Your task to perform on an android device: Clear all items from cart on ebay. Image 0: 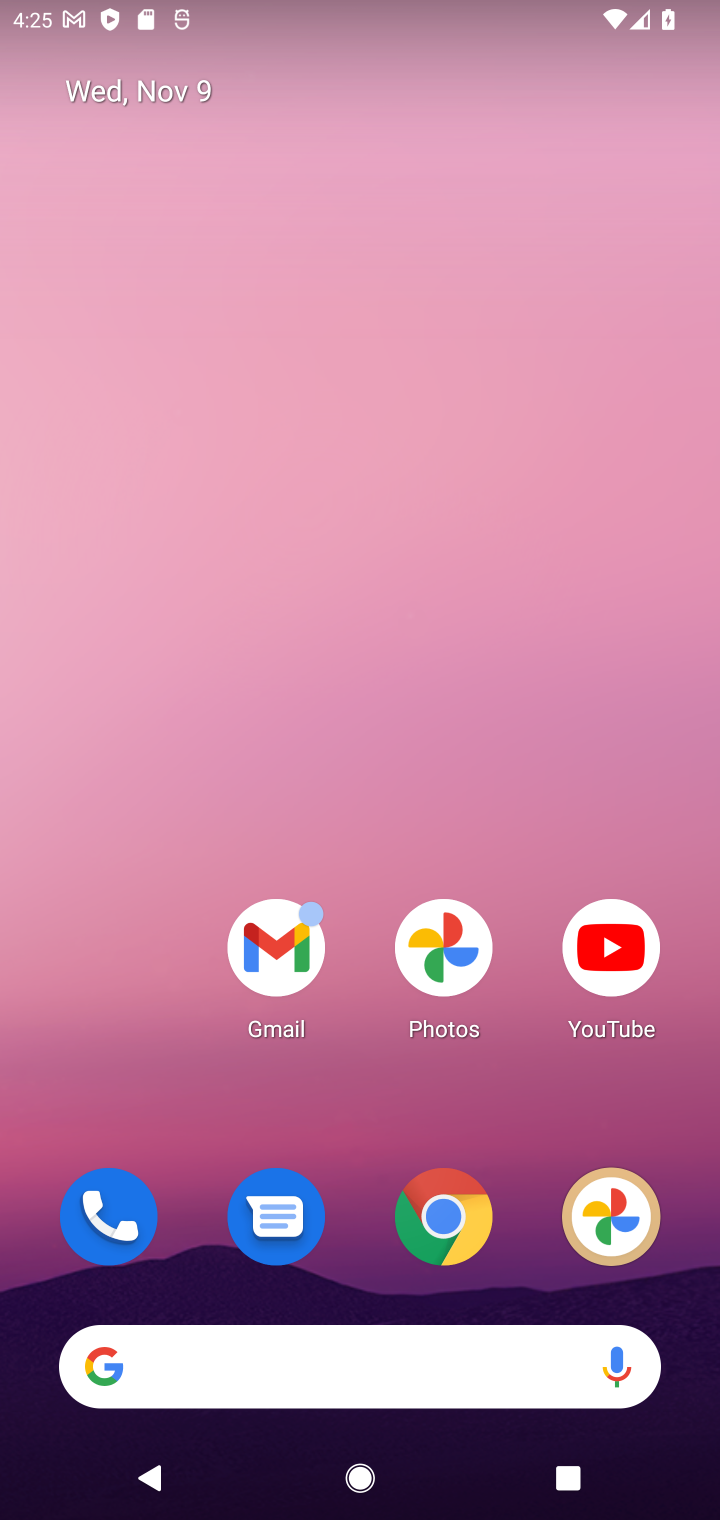
Step 0: drag from (366, 1071) to (382, 223)
Your task to perform on an android device: Clear all items from cart on ebay. Image 1: 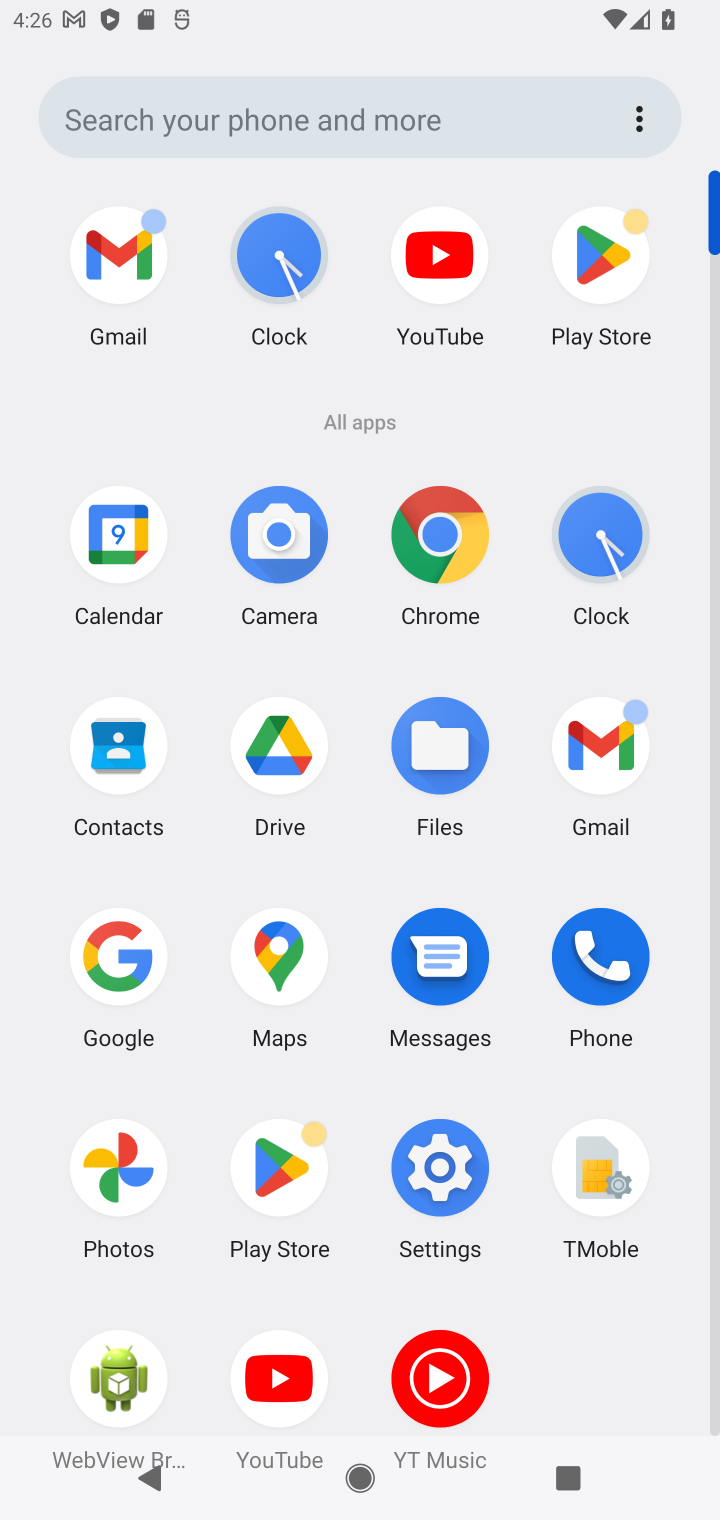
Step 1: click (451, 541)
Your task to perform on an android device: Clear all items from cart on ebay. Image 2: 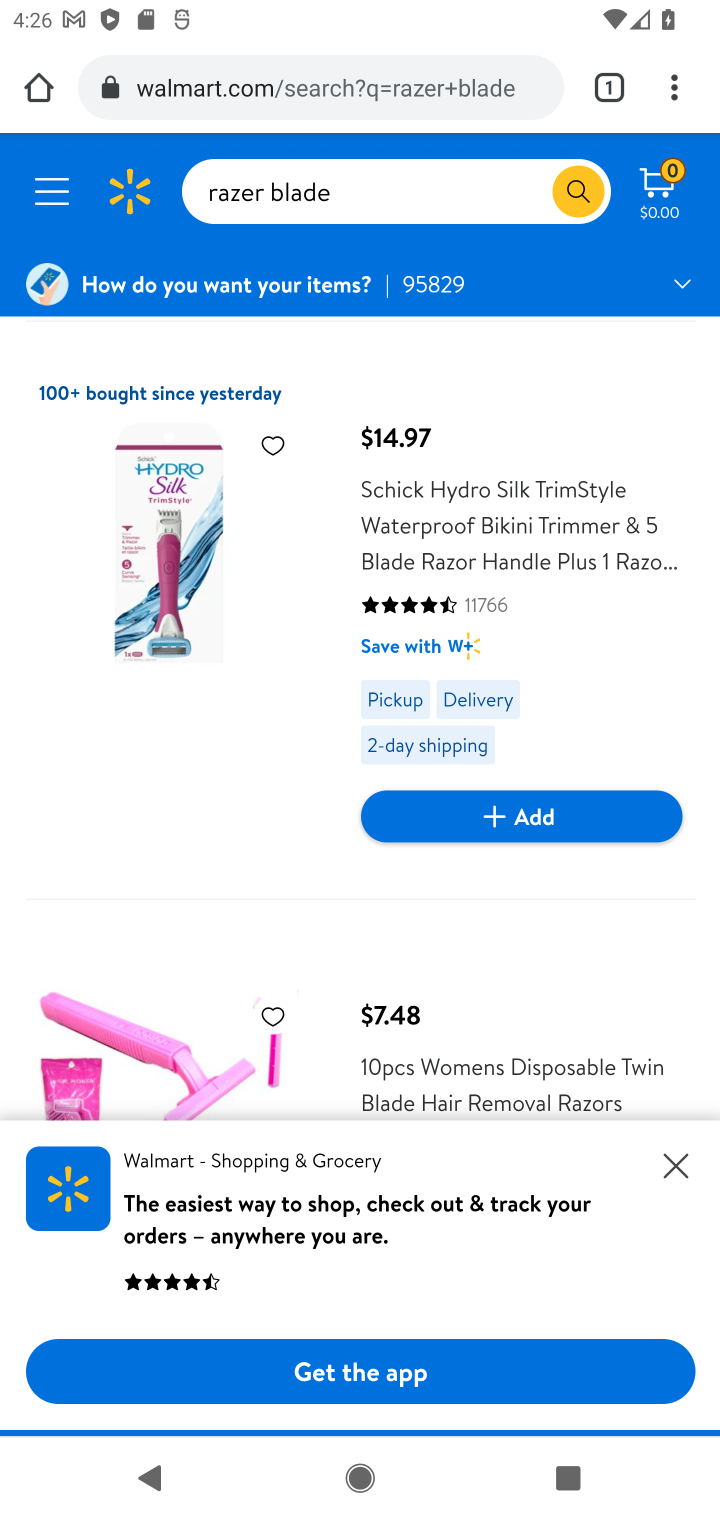
Step 2: click (388, 70)
Your task to perform on an android device: Clear all items from cart on ebay. Image 3: 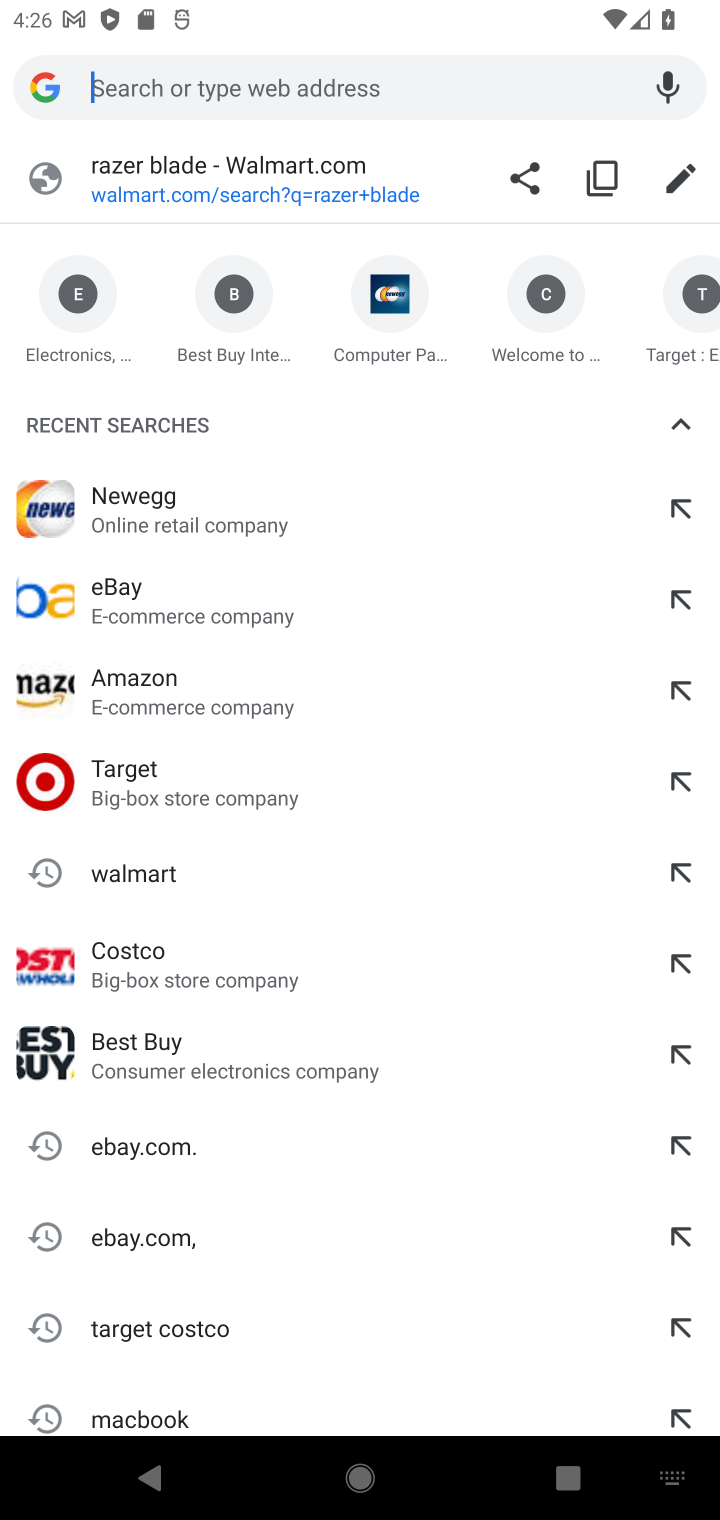
Step 3: type "ebay.com"
Your task to perform on an android device: Clear all items from cart on ebay. Image 4: 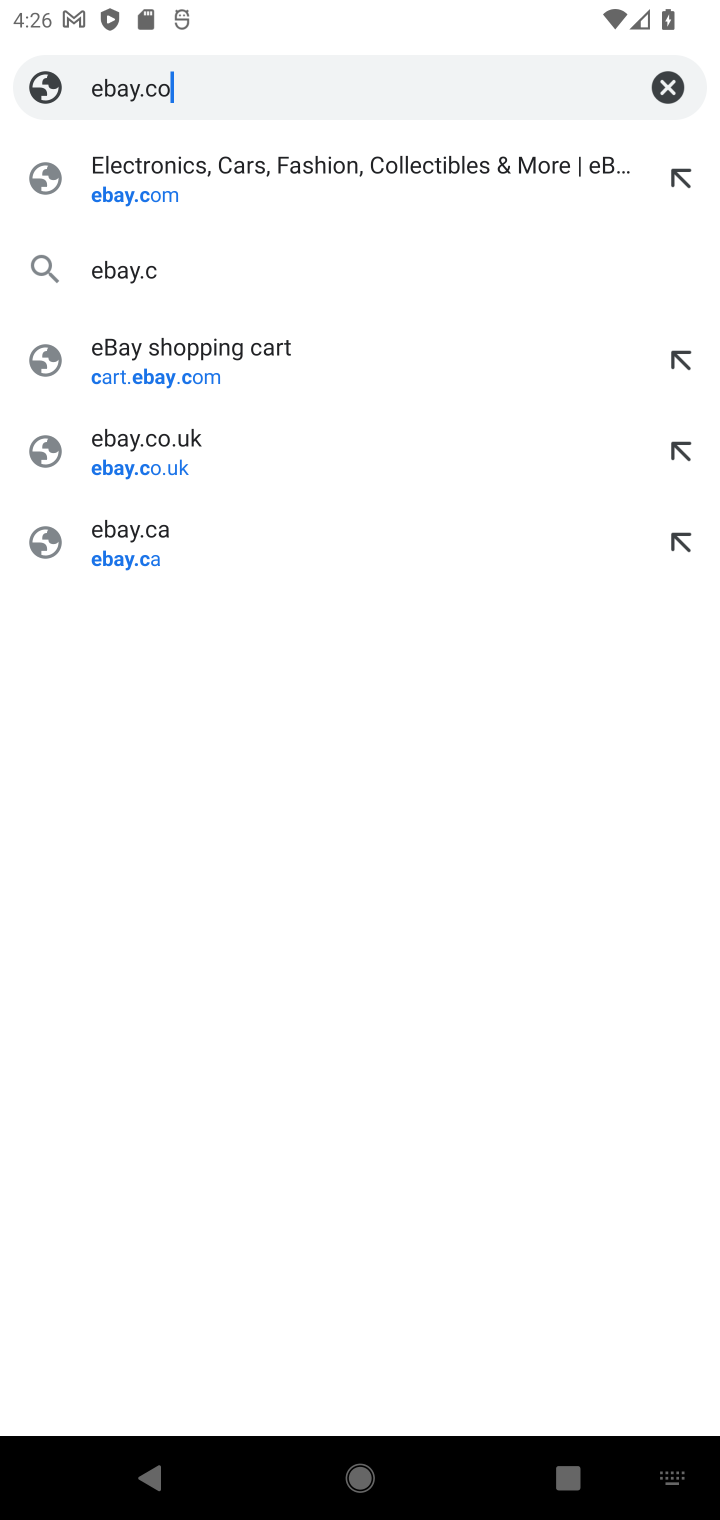
Step 4: press enter
Your task to perform on an android device: Clear all items from cart on ebay. Image 5: 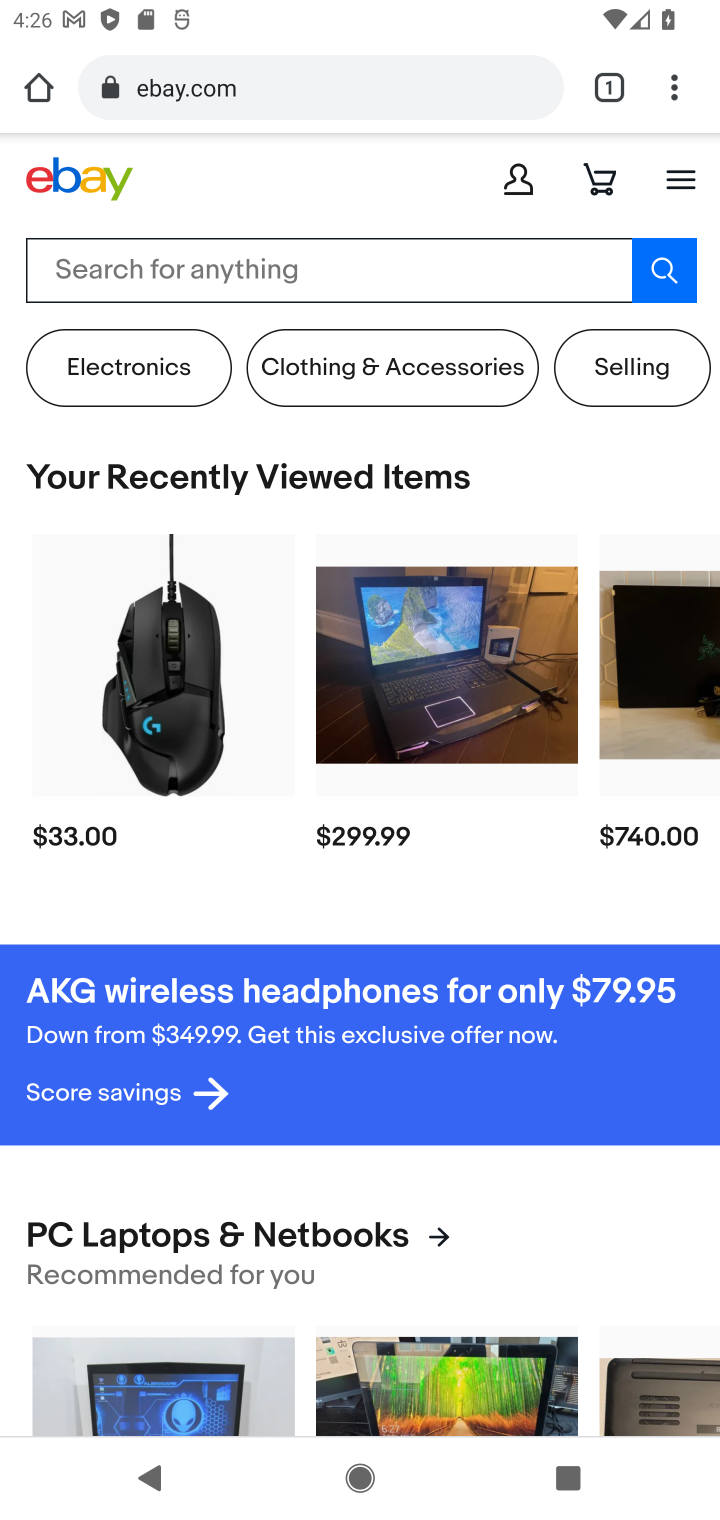
Step 5: click (593, 191)
Your task to perform on an android device: Clear all items from cart on ebay. Image 6: 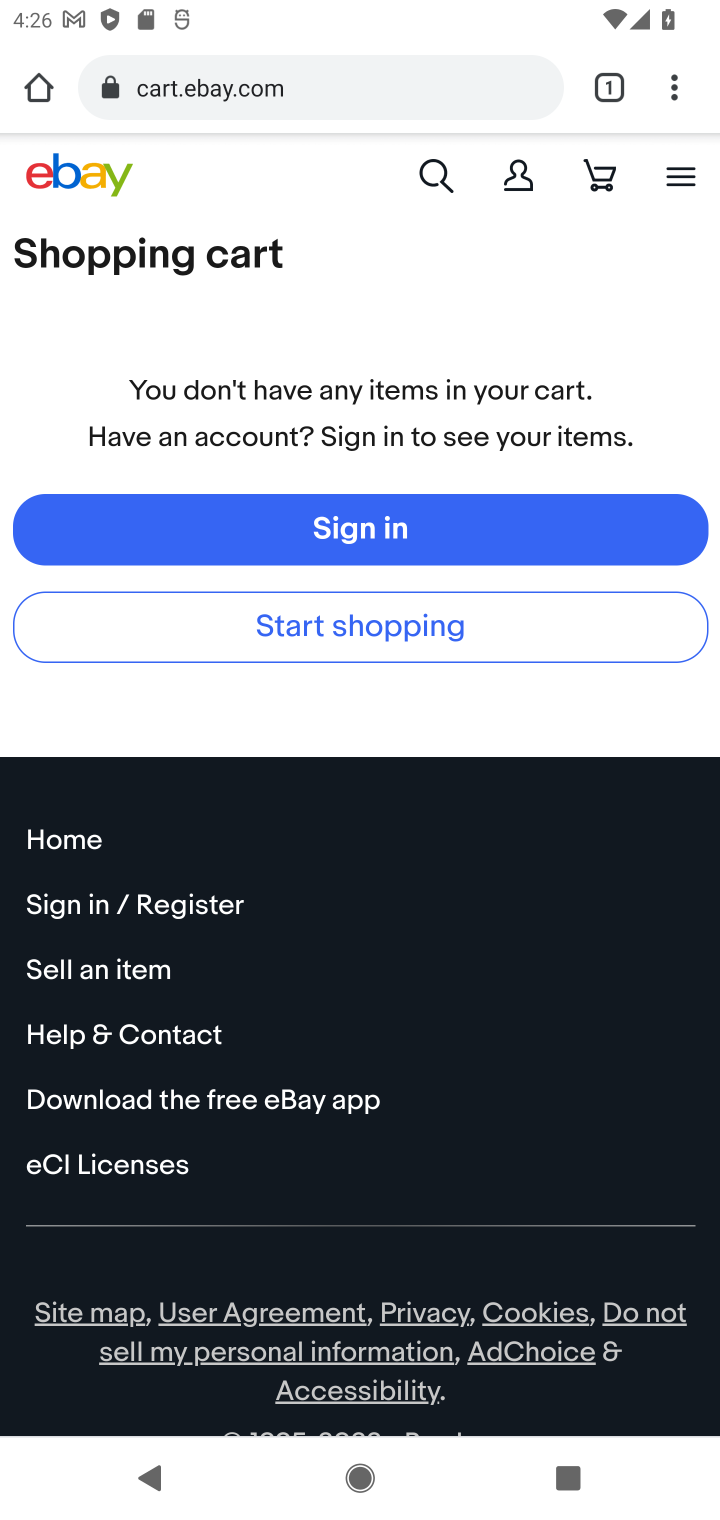
Step 6: task complete